Your task to perform on an android device: turn on translation in the chrome app Image 0: 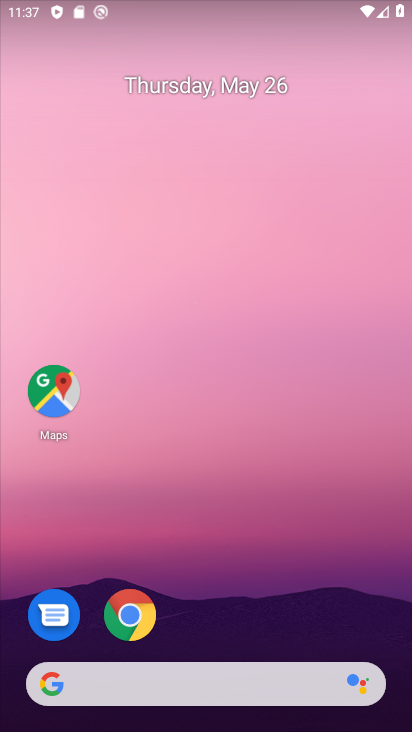
Step 0: drag from (212, 649) to (332, 67)
Your task to perform on an android device: turn on translation in the chrome app Image 1: 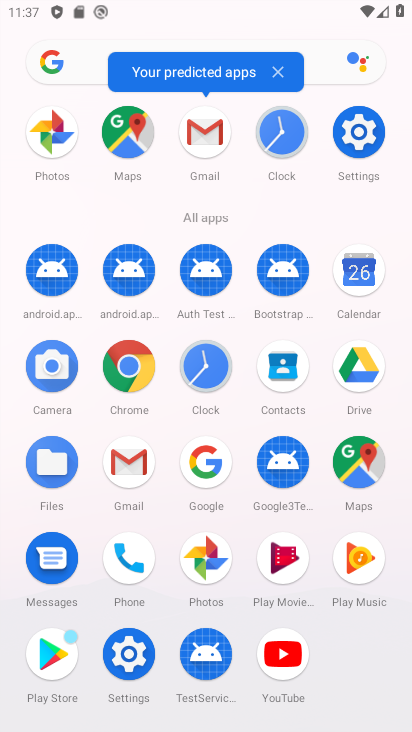
Step 1: click (137, 382)
Your task to perform on an android device: turn on translation in the chrome app Image 2: 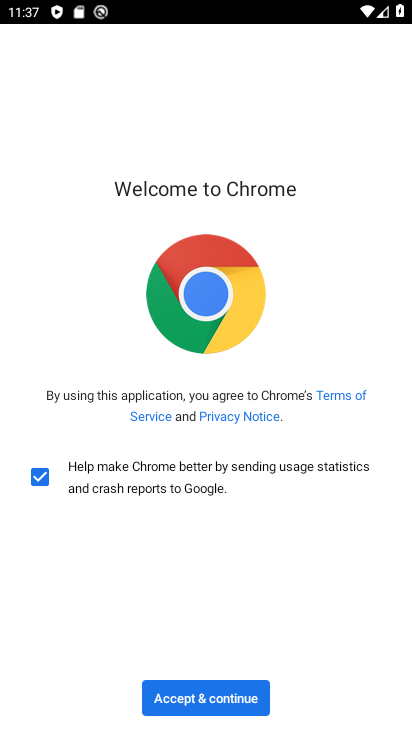
Step 2: click (208, 702)
Your task to perform on an android device: turn on translation in the chrome app Image 3: 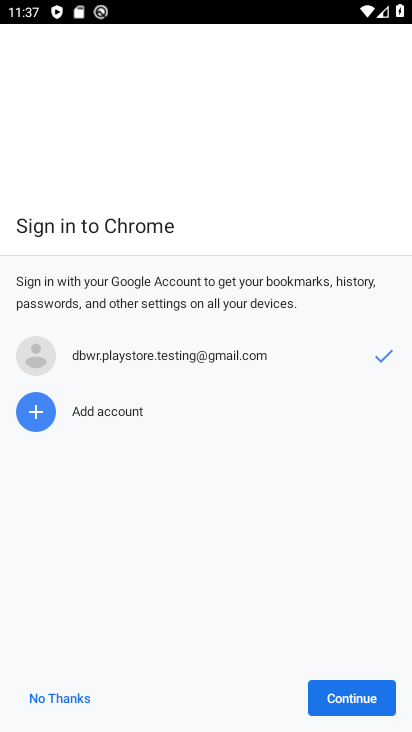
Step 3: click (337, 687)
Your task to perform on an android device: turn on translation in the chrome app Image 4: 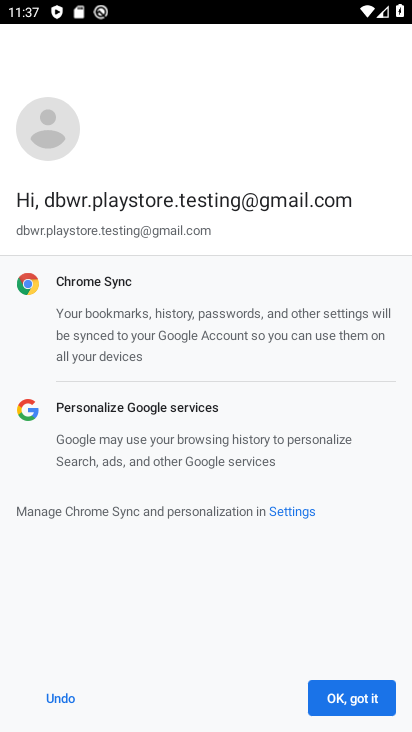
Step 4: click (351, 721)
Your task to perform on an android device: turn on translation in the chrome app Image 5: 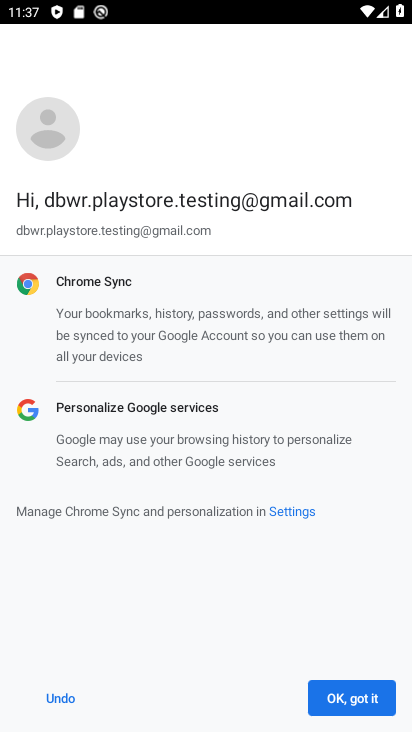
Step 5: click (359, 689)
Your task to perform on an android device: turn on translation in the chrome app Image 6: 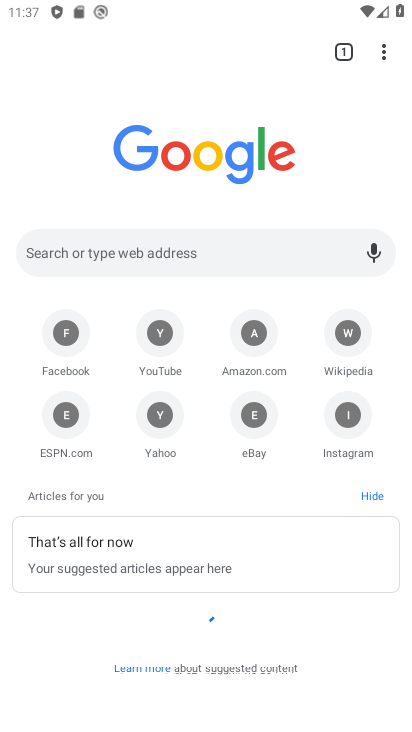
Step 6: drag from (394, 50) to (284, 426)
Your task to perform on an android device: turn on translation in the chrome app Image 7: 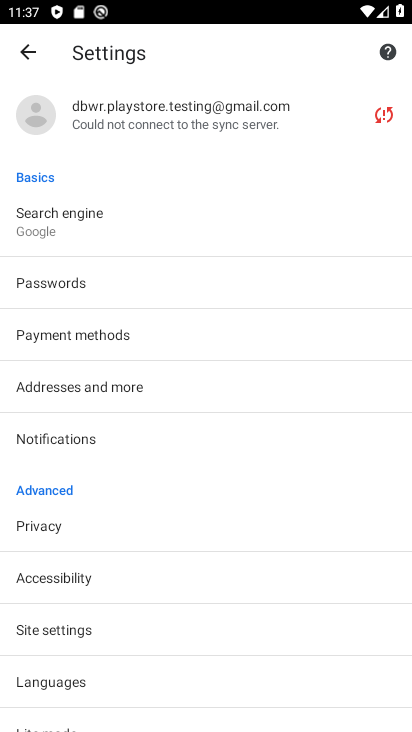
Step 7: drag from (94, 642) to (200, 388)
Your task to perform on an android device: turn on translation in the chrome app Image 8: 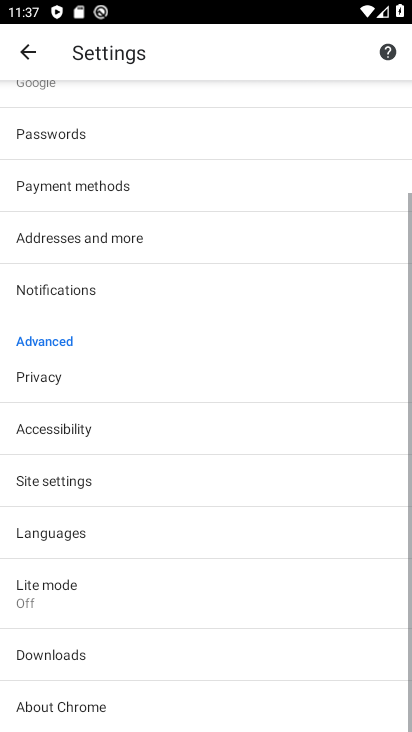
Step 8: click (132, 541)
Your task to perform on an android device: turn on translation in the chrome app Image 9: 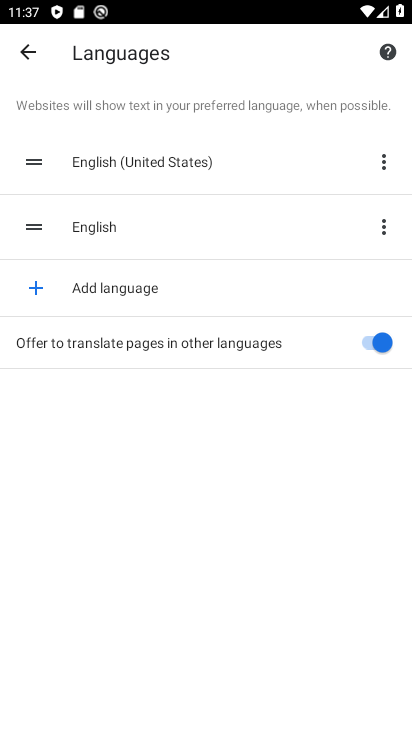
Step 9: task complete